Your task to perform on an android device: empty trash in the gmail app Image 0: 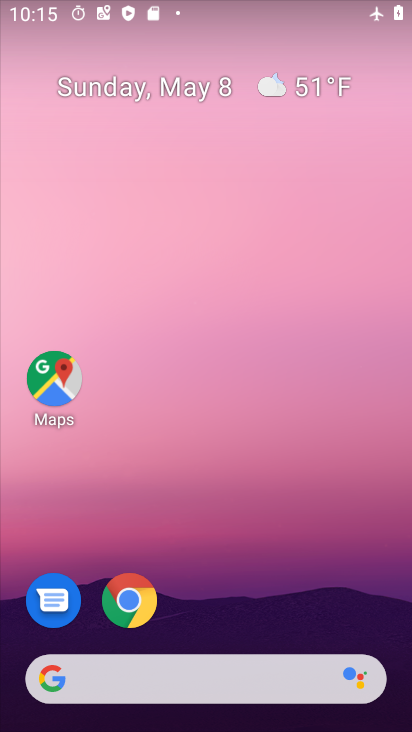
Step 0: drag from (226, 508) to (229, 13)
Your task to perform on an android device: empty trash in the gmail app Image 1: 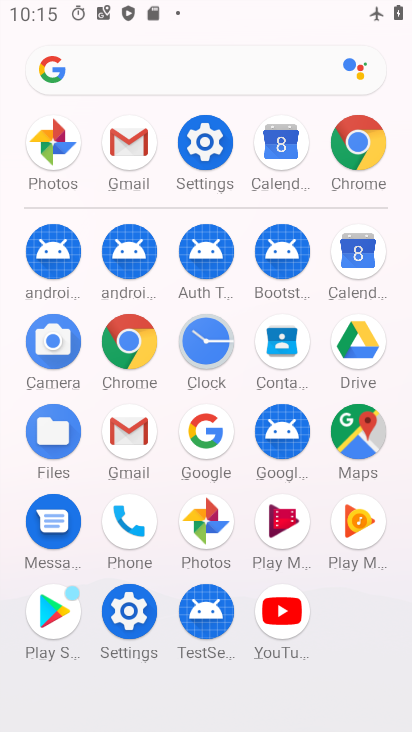
Step 1: drag from (0, 563) to (17, 284)
Your task to perform on an android device: empty trash in the gmail app Image 2: 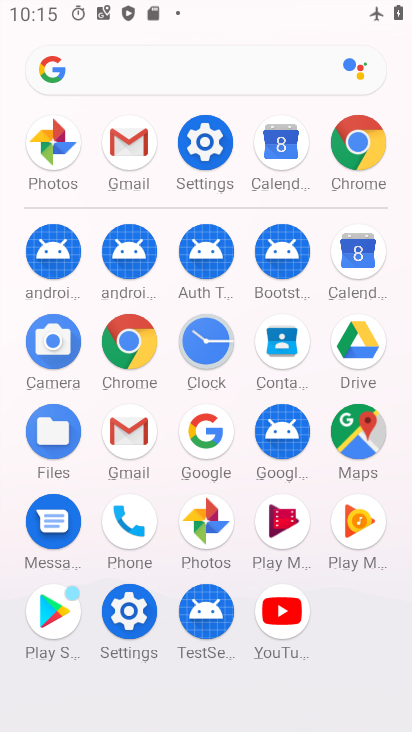
Step 2: click (123, 424)
Your task to perform on an android device: empty trash in the gmail app Image 3: 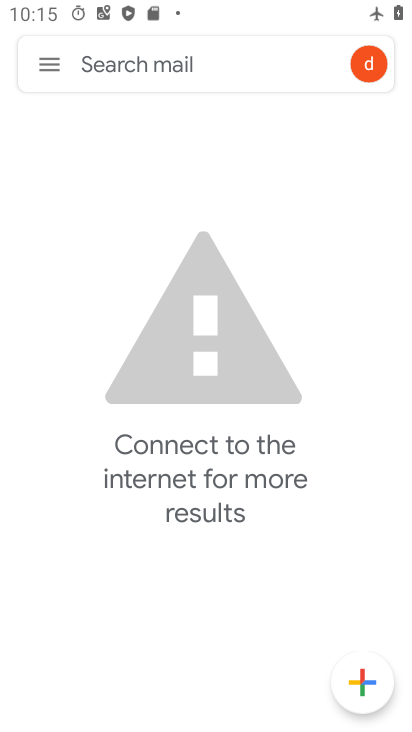
Step 3: click (49, 67)
Your task to perform on an android device: empty trash in the gmail app Image 4: 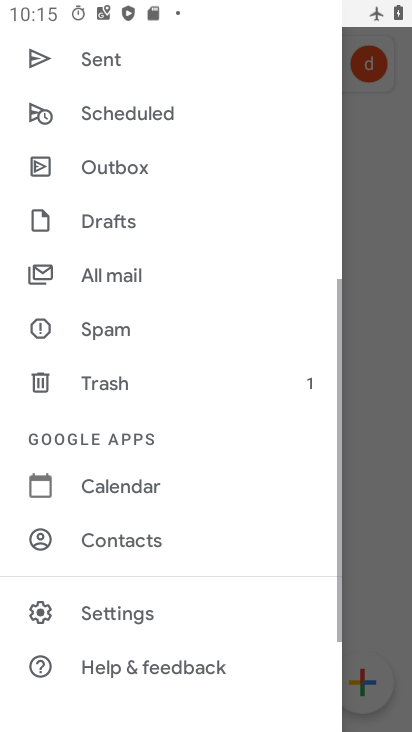
Step 4: drag from (181, 605) to (188, 175)
Your task to perform on an android device: empty trash in the gmail app Image 5: 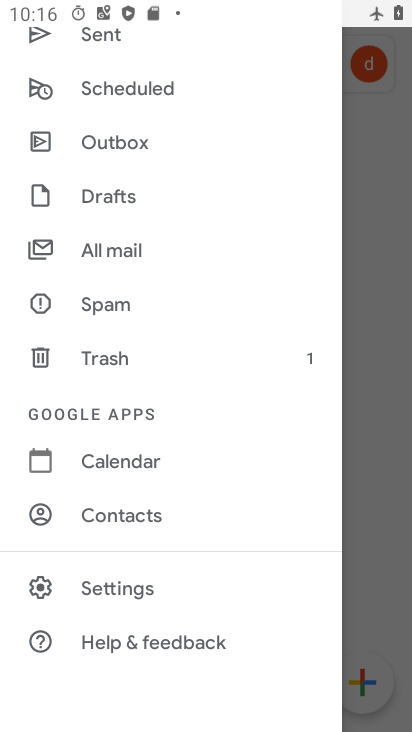
Step 5: click (126, 583)
Your task to perform on an android device: empty trash in the gmail app Image 6: 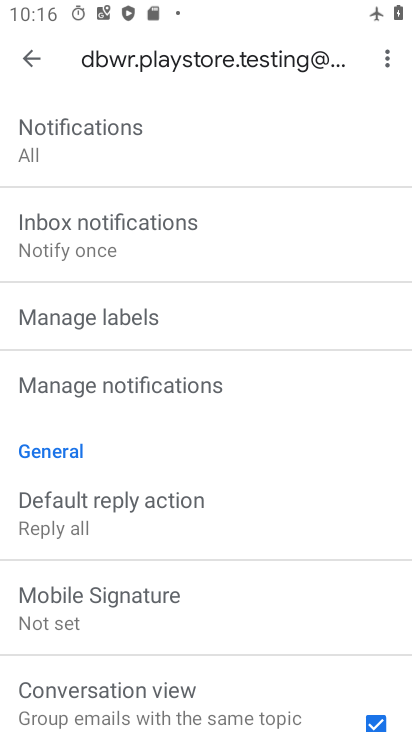
Step 6: drag from (214, 555) to (275, 125)
Your task to perform on an android device: empty trash in the gmail app Image 7: 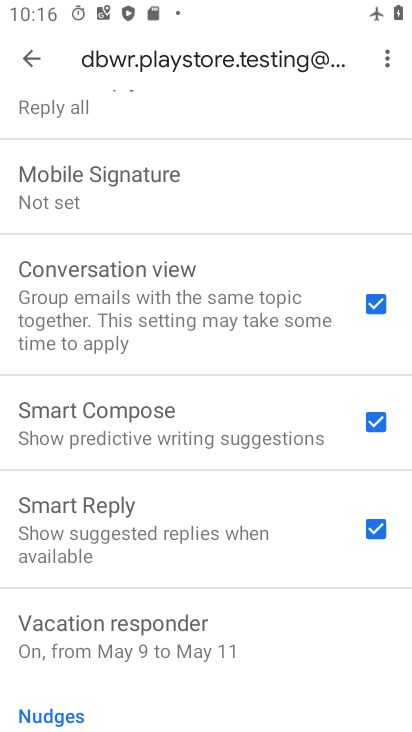
Step 7: drag from (204, 684) to (268, 186)
Your task to perform on an android device: empty trash in the gmail app Image 8: 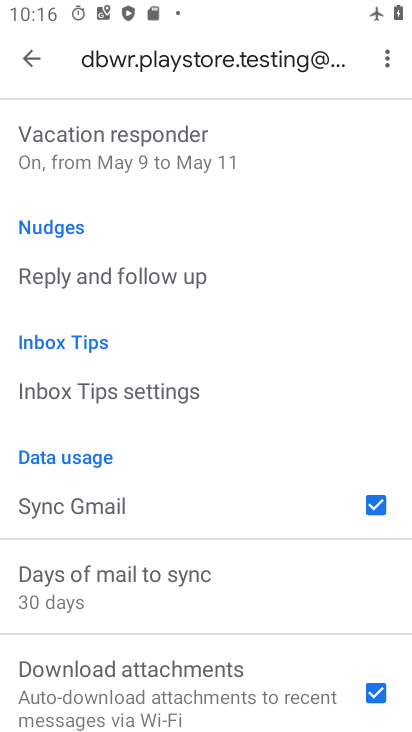
Step 8: drag from (182, 613) to (260, 199)
Your task to perform on an android device: empty trash in the gmail app Image 9: 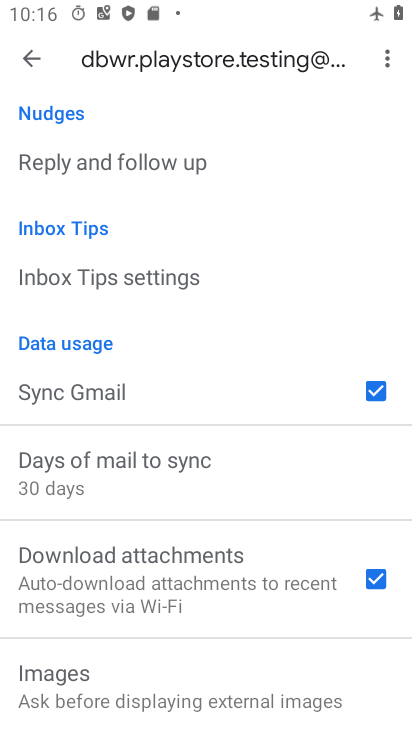
Step 9: drag from (256, 151) to (265, 621)
Your task to perform on an android device: empty trash in the gmail app Image 10: 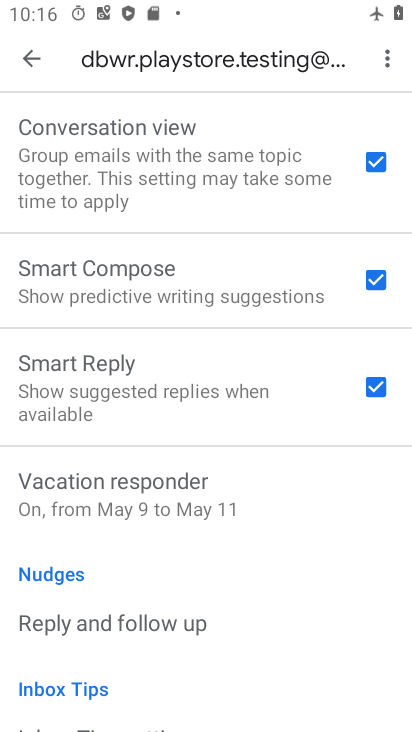
Step 10: drag from (226, 219) to (220, 649)
Your task to perform on an android device: empty trash in the gmail app Image 11: 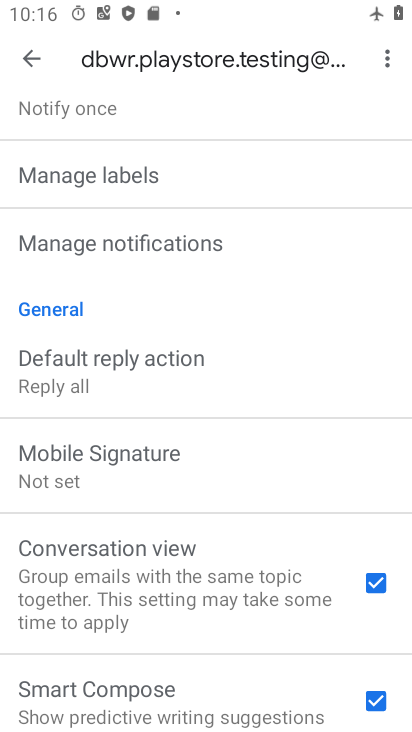
Step 11: drag from (213, 187) to (227, 666)
Your task to perform on an android device: empty trash in the gmail app Image 12: 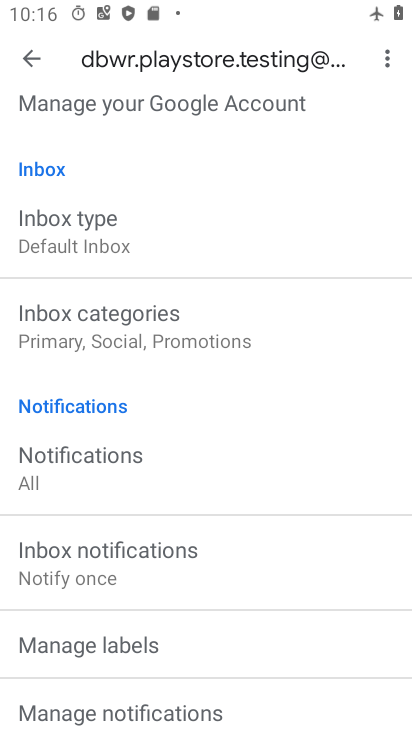
Step 12: drag from (291, 253) to (275, 622)
Your task to perform on an android device: empty trash in the gmail app Image 13: 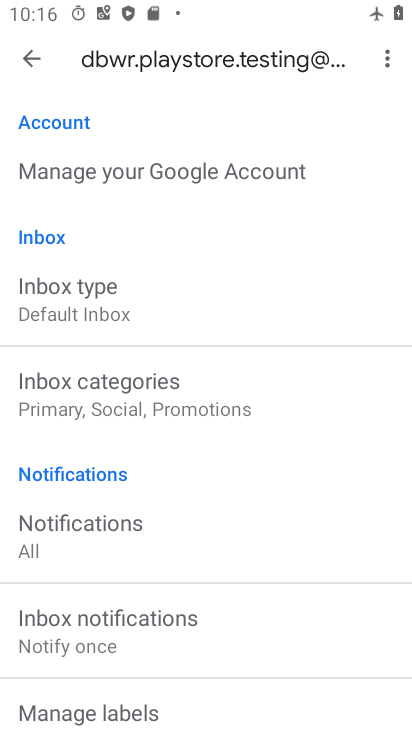
Step 13: drag from (230, 609) to (243, 238)
Your task to perform on an android device: empty trash in the gmail app Image 14: 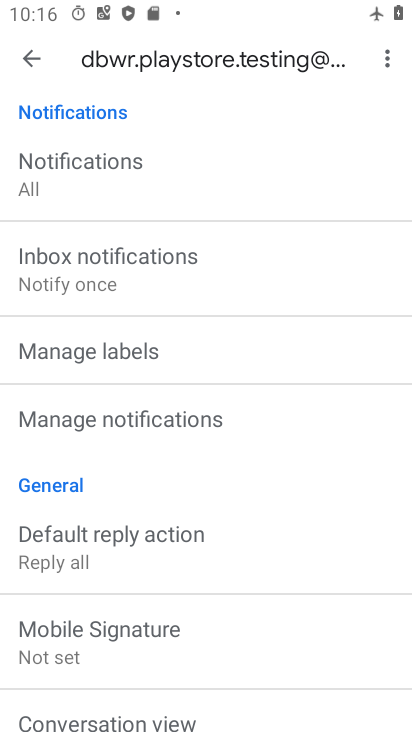
Step 14: click (40, 56)
Your task to perform on an android device: empty trash in the gmail app Image 15: 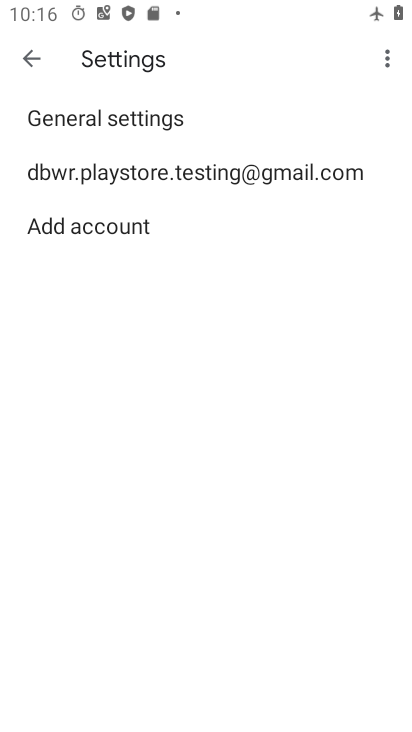
Step 15: click (40, 56)
Your task to perform on an android device: empty trash in the gmail app Image 16: 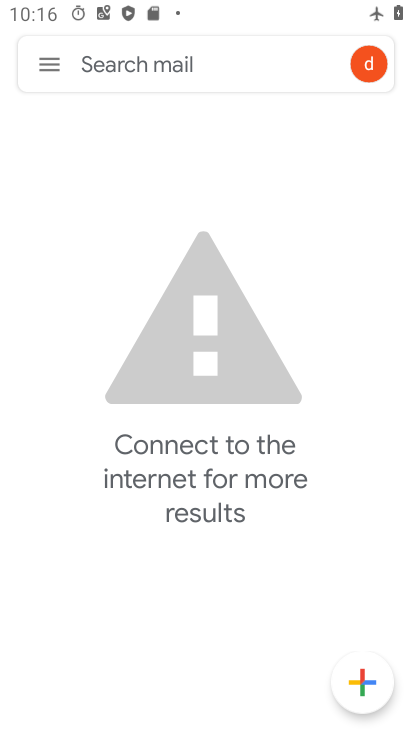
Step 16: click (62, 73)
Your task to perform on an android device: empty trash in the gmail app Image 17: 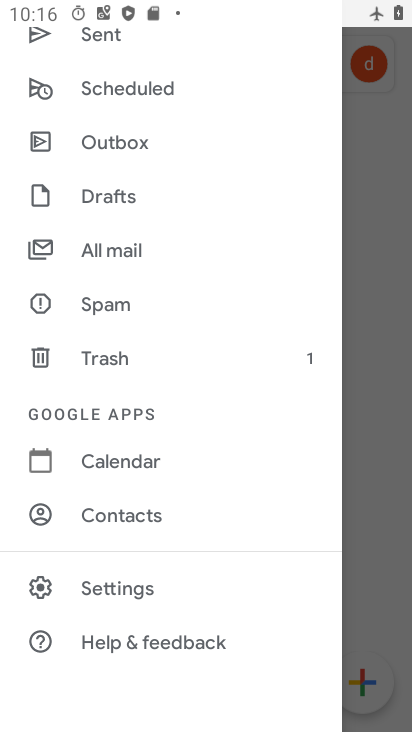
Step 17: click (138, 347)
Your task to perform on an android device: empty trash in the gmail app Image 18: 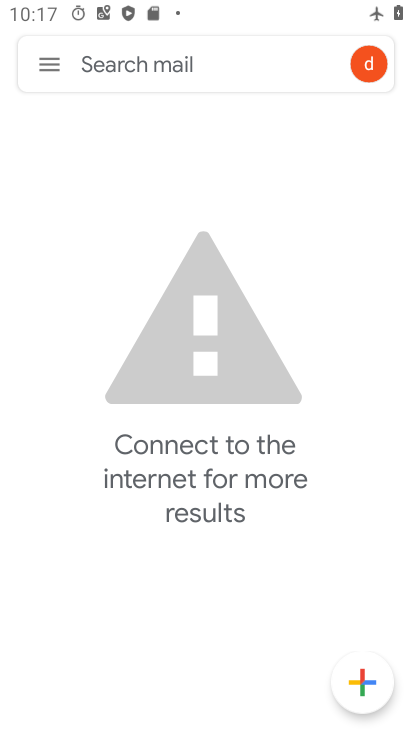
Step 18: task complete